Your task to perform on an android device: Open location settings Image 0: 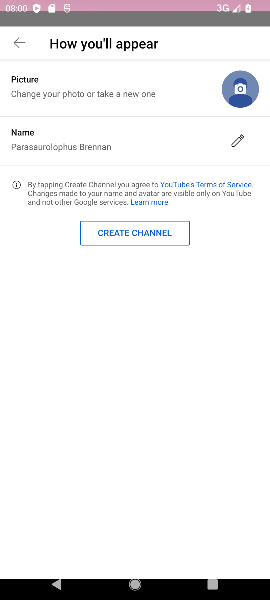
Step 0: press home button
Your task to perform on an android device: Open location settings Image 1: 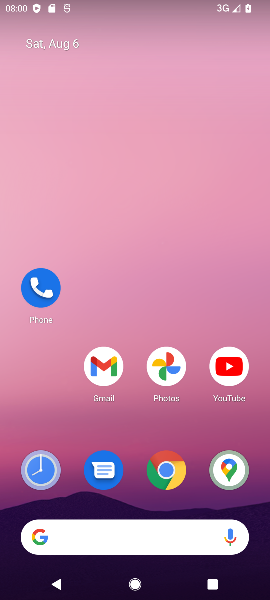
Step 1: drag from (209, 506) to (59, 80)
Your task to perform on an android device: Open location settings Image 2: 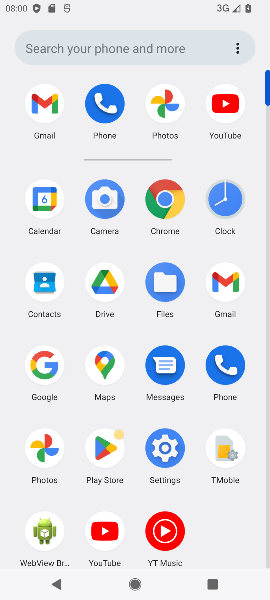
Step 2: click (174, 451)
Your task to perform on an android device: Open location settings Image 3: 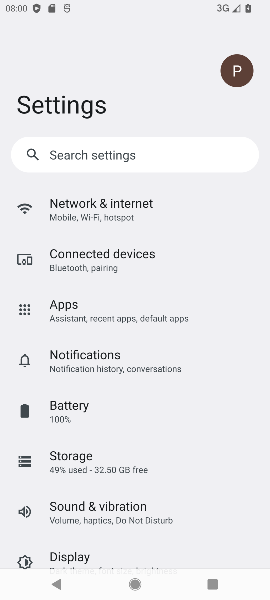
Step 3: drag from (193, 497) to (193, 153)
Your task to perform on an android device: Open location settings Image 4: 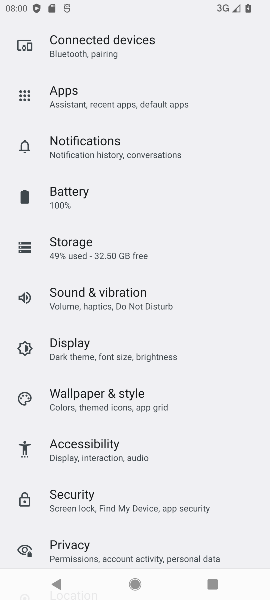
Step 4: drag from (94, 481) to (99, 251)
Your task to perform on an android device: Open location settings Image 5: 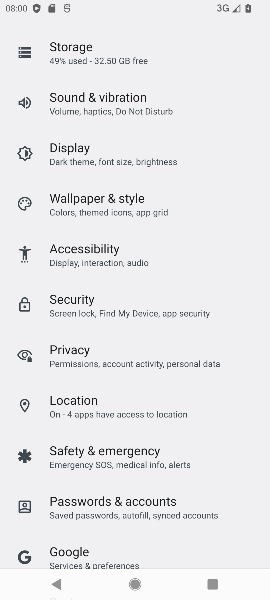
Step 5: click (81, 393)
Your task to perform on an android device: Open location settings Image 6: 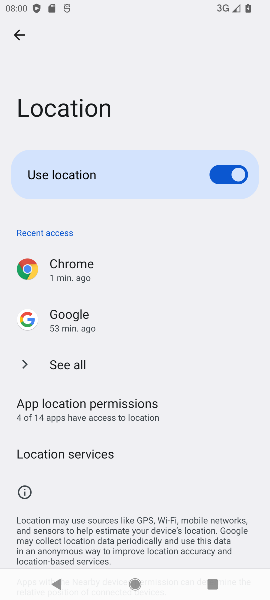
Step 6: task complete